Your task to perform on an android device: Search for "usb-c to usb-a" on walmart.com, select the first entry, and add it to the cart. Image 0: 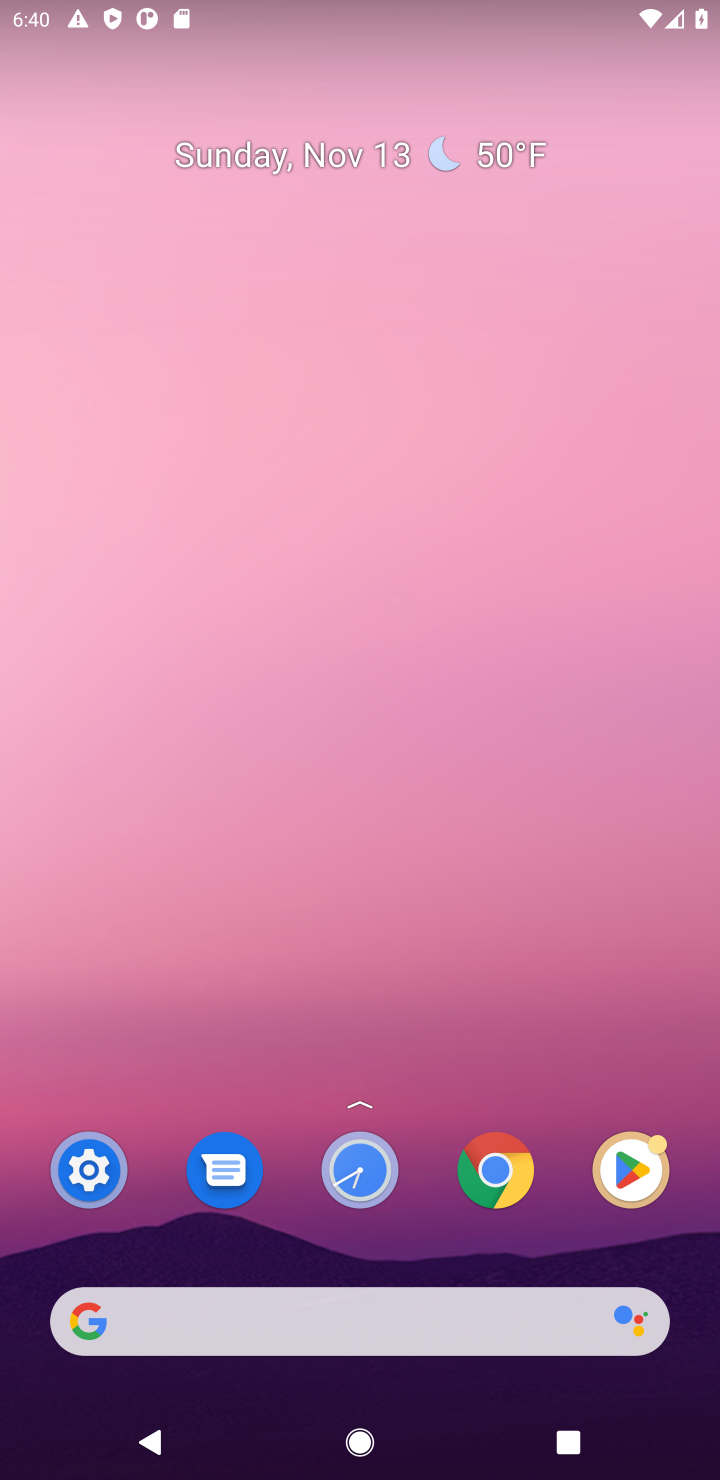
Step 0: click (353, 1345)
Your task to perform on an android device: Search for "usb-c to usb-a" on walmart.com, select the first entry, and add it to the cart. Image 1: 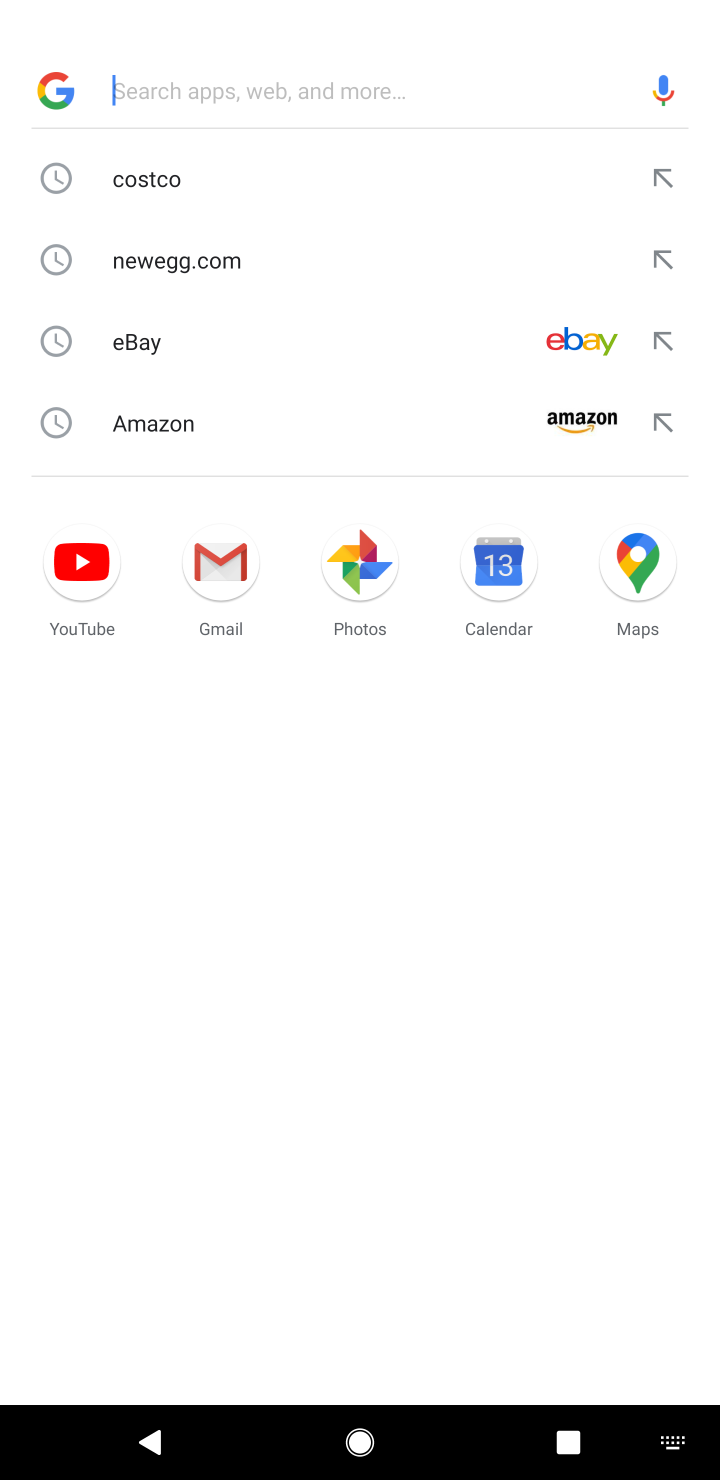
Step 1: type "usb-c to usb-a"
Your task to perform on an android device: Search for "usb-c to usb-a" on walmart.com, select the first entry, and add it to the cart. Image 2: 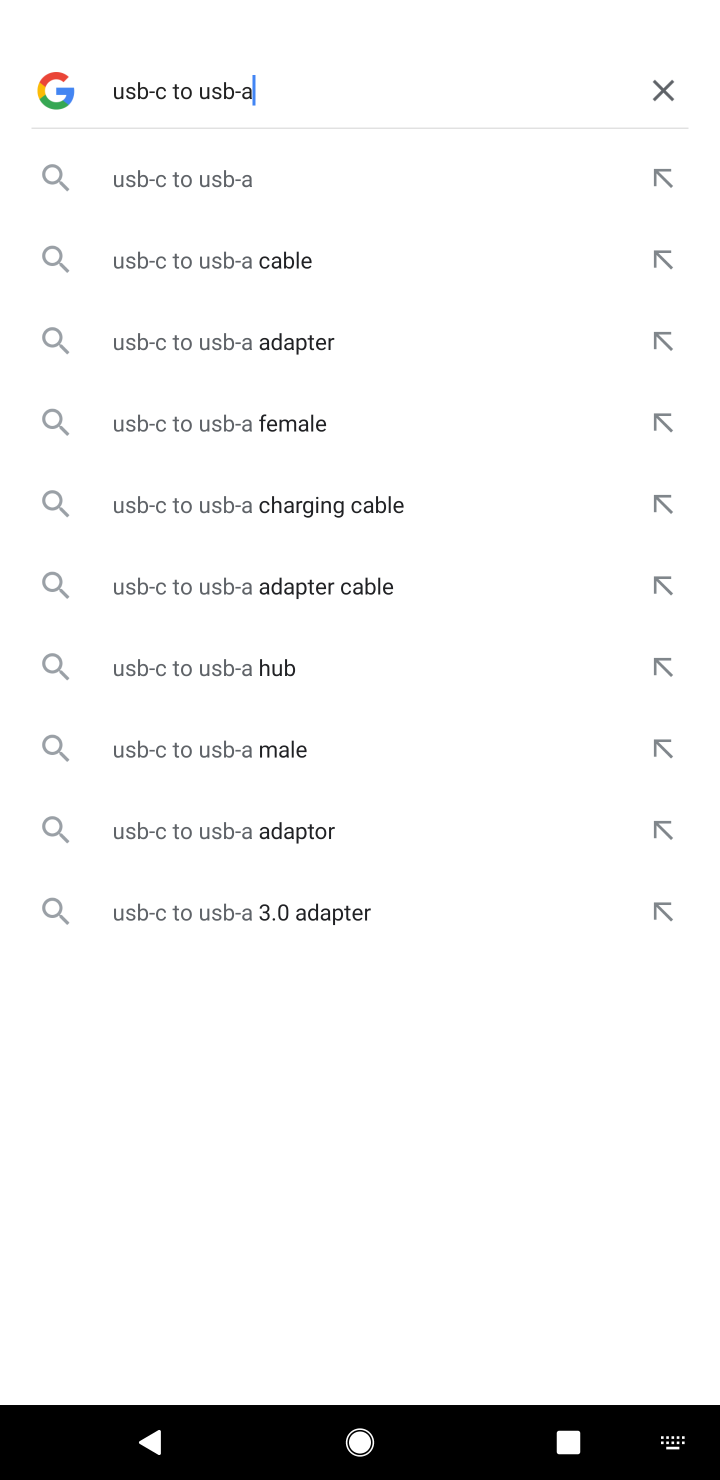
Step 2: click (275, 157)
Your task to perform on an android device: Search for "usb-c to usb-a" on walmart.com, select the first entry, and add it to the cart. Image 3: 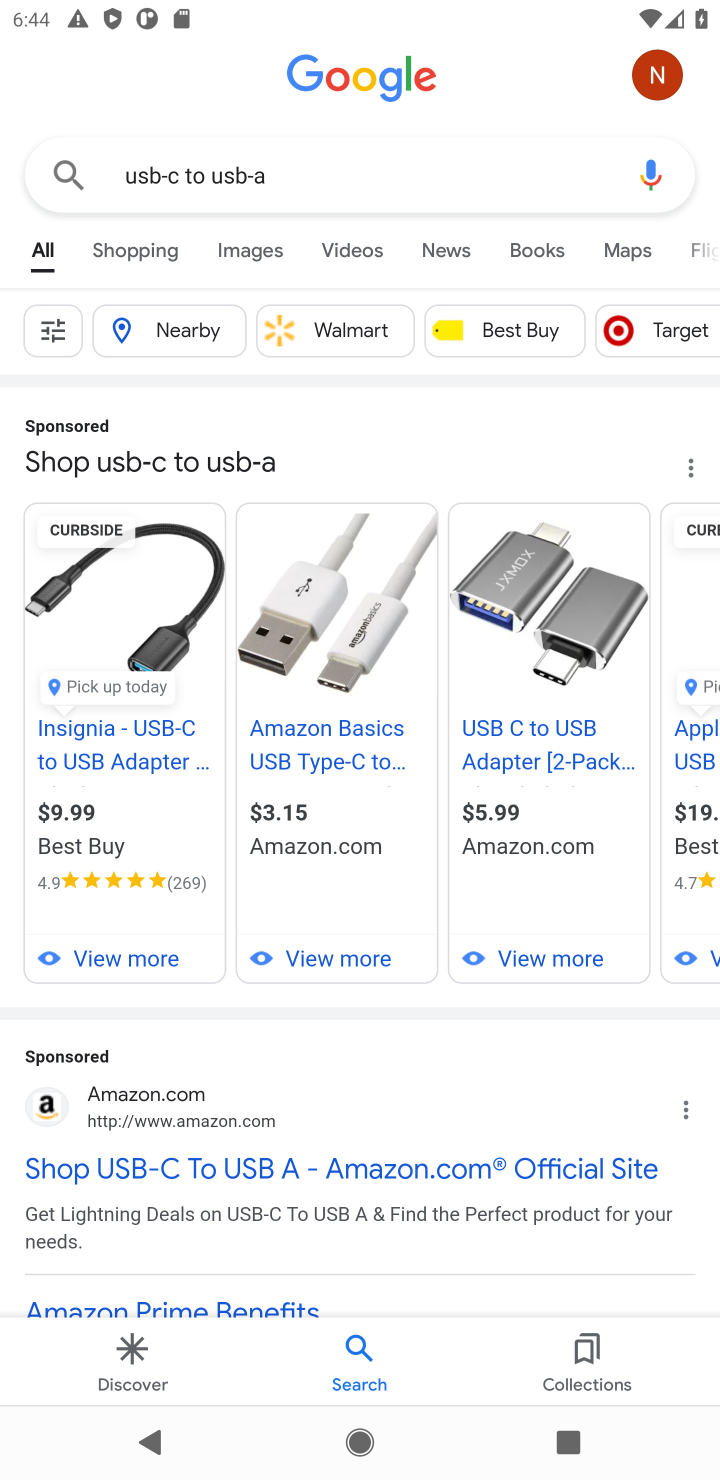
Step 3: task complete